Your task to perform on an android device: move an email to a new category in the gmail app Image 0: 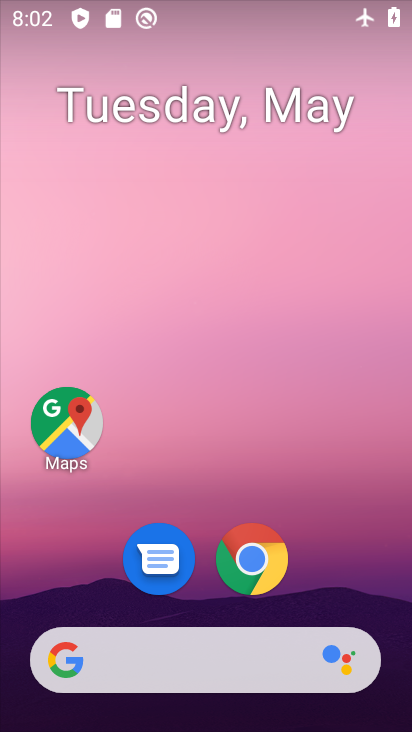
Step 0: drag from (197, 608) to (198, 159)
Your task to perform on an android device: move an email to a new category in the gmail app Image 1: 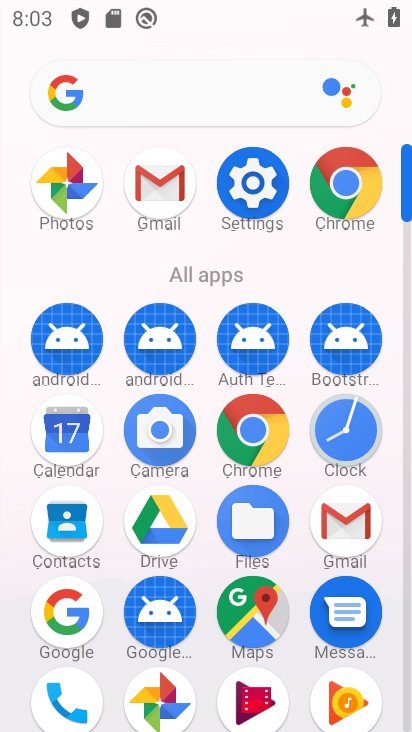
Step 1: click (336, 518)
Your task to perform on an android device: move an email to a new category in the gmail app Image 2: 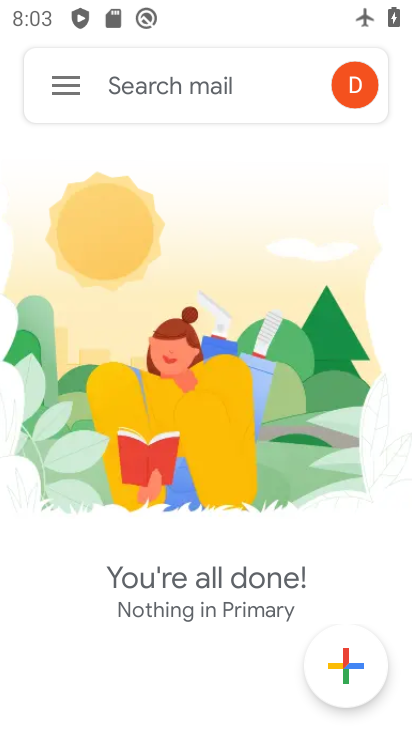
Step 2: click (57, 94)
Your task to perform on an android device: move an email to a new category in the gmail app Image 3: 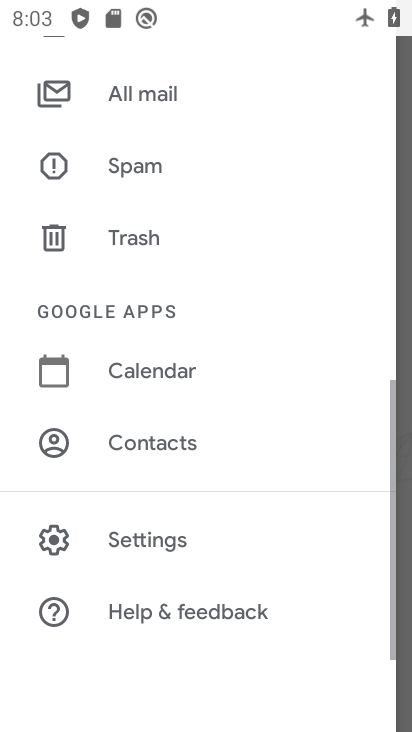
Step 3: click (147, 103)
Your task to perform on an android device: move an email to a new category in the gmail app Image 4: 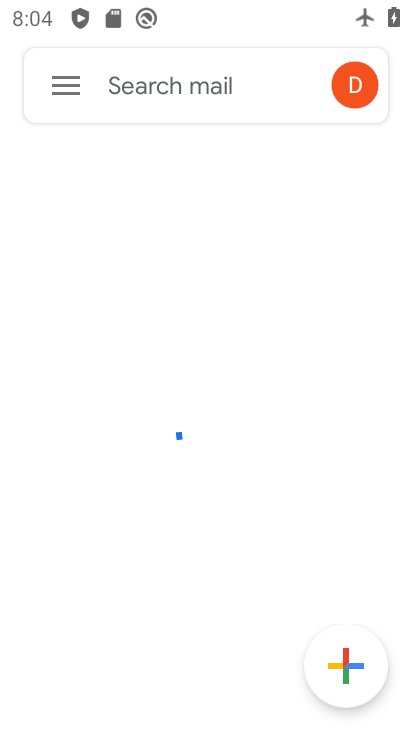
Step 4: task complete